Your task to perform on an android device: Search for seafood restaurants on Google Maps Image 0: 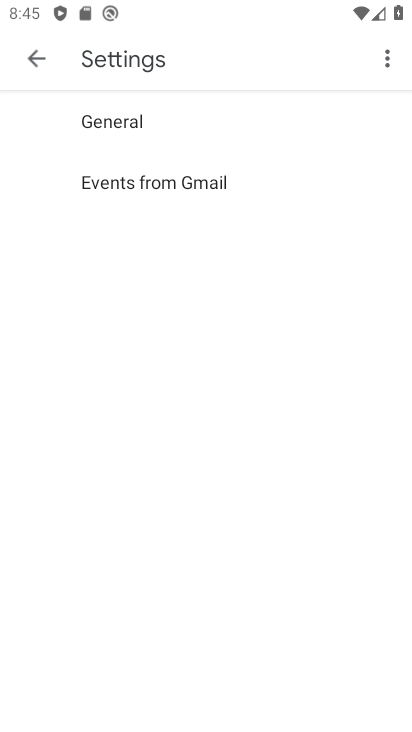
Step 0: press home button
Your task to perform on an android device: Search for seafood restaurants on Google Maps Image 1: 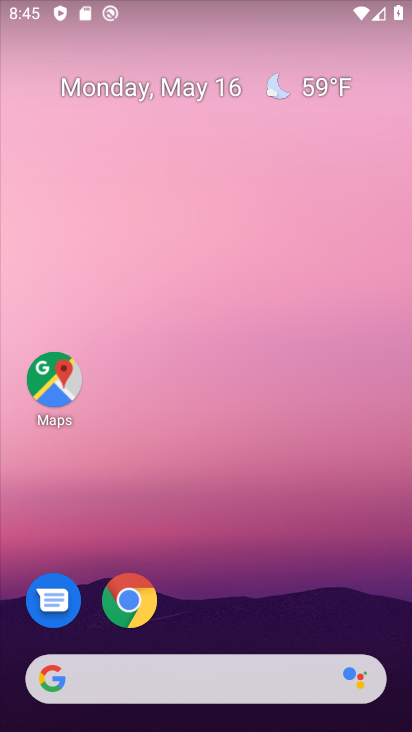
Step 1: click (59, 385)
Your task to perform on an android device: Search for seafood restaurants on Google Maps Image 2: 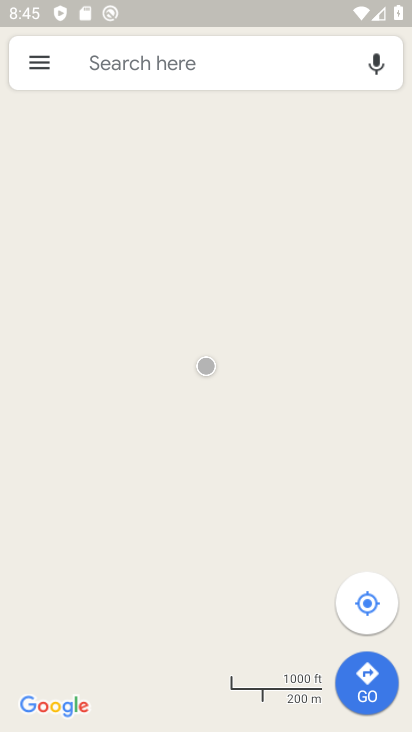
Step 2: click (138, 68)
Your task to perform on an android device: Search for seafood restaurants on Google Maps Image 3: 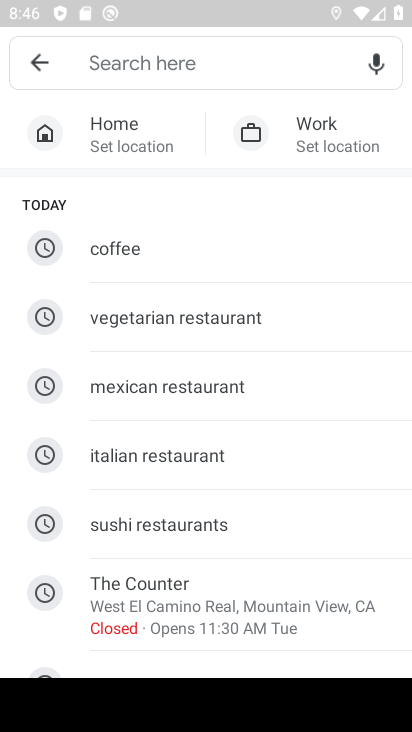
Step 3: drag from (142, 607) to (249, 223)
Your task to perform on an android device: Search for seafood restaurants on Google Maps Image 4: 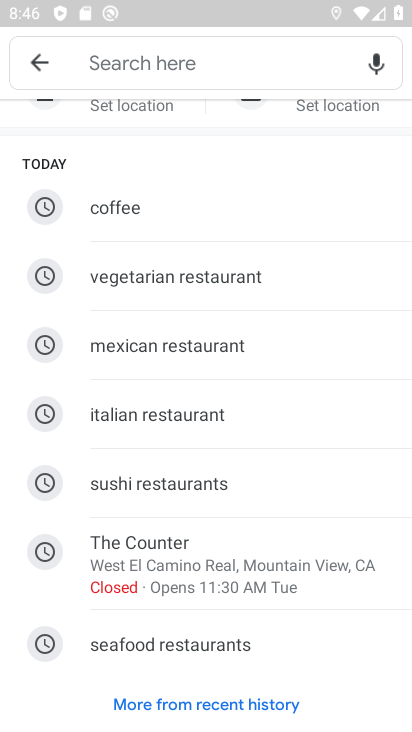
Step 4: click (184, 640)
Your task to perform on an android device: Search for seafood restaurants on Google Maps Image 5: 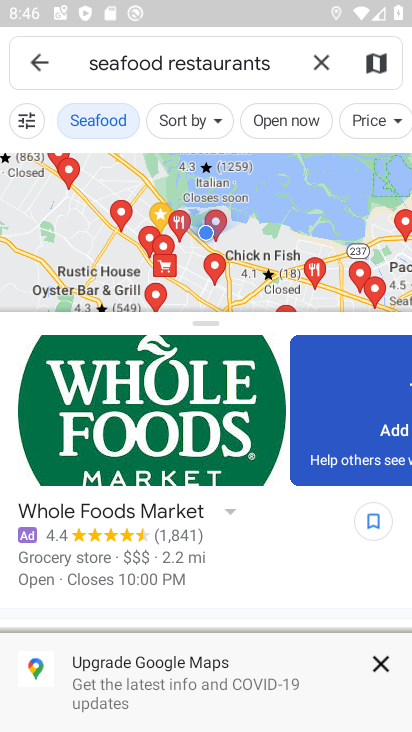
Step 5: click (374, 659)
Your task to perform on an android device: Search for seafood restaurants on Google Maps Image 6: 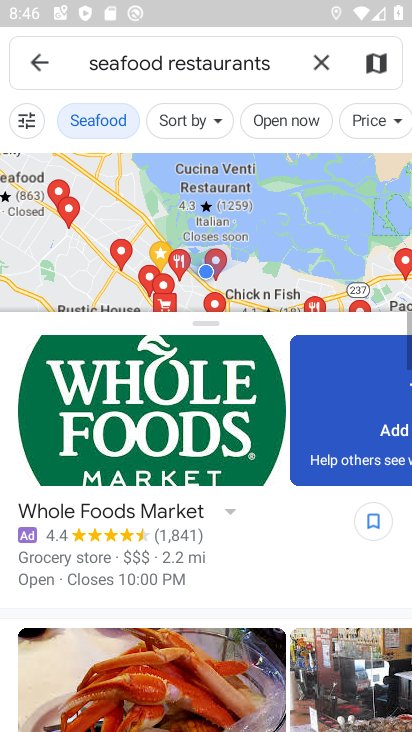
Step 6: task complete